Your task to perform on an android device: delete browsing data in the chrome app Image 0: 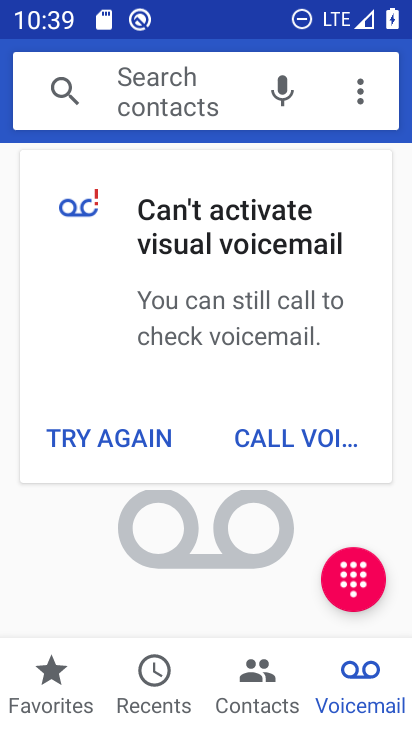
Step 0: press home button
Your task to perform on an android device: delete browsing data in the chrome app Image 1: 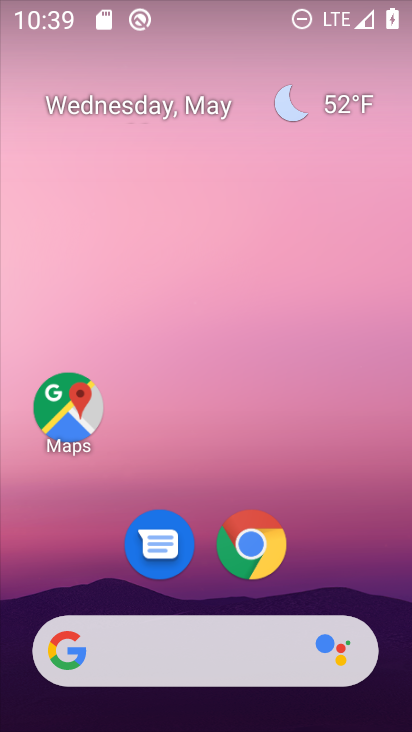
Step 1: click (252, 545)
Your task to perform on an android device: delete browsing data in the chrome app Image 2: 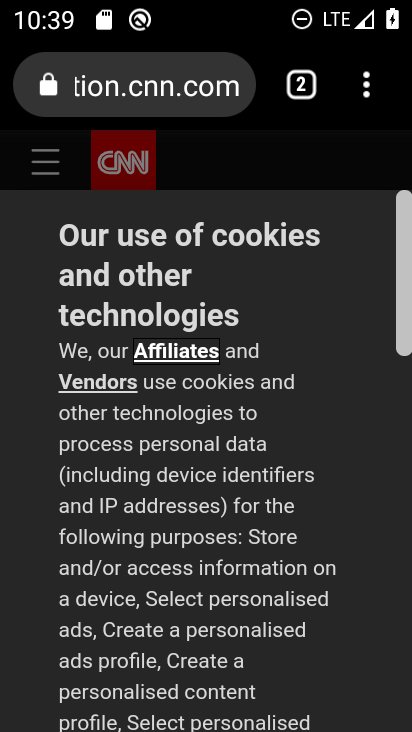
Step 2: click (354, 98)
Your task to perform on an android device: delete browsing data in the chrome app Image 3: 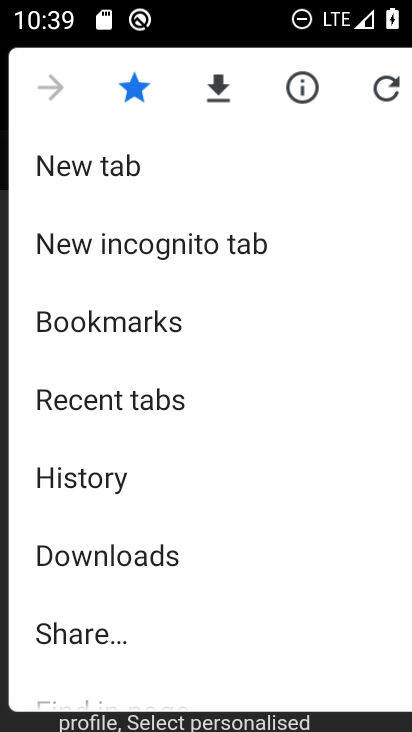
Step 3: click (87, 481)
Your task to perform on an android device: delete browsing data in the chrome app Image 4: 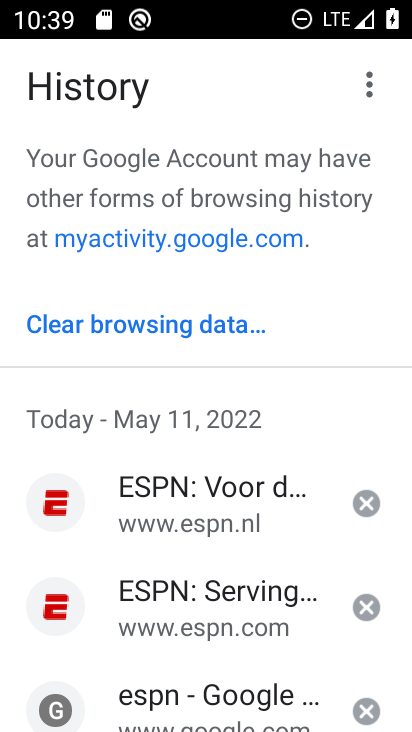
Step 4: click (110, 319)
Your task to perform on an android device: delete browsing data in the chrome app Image 5: 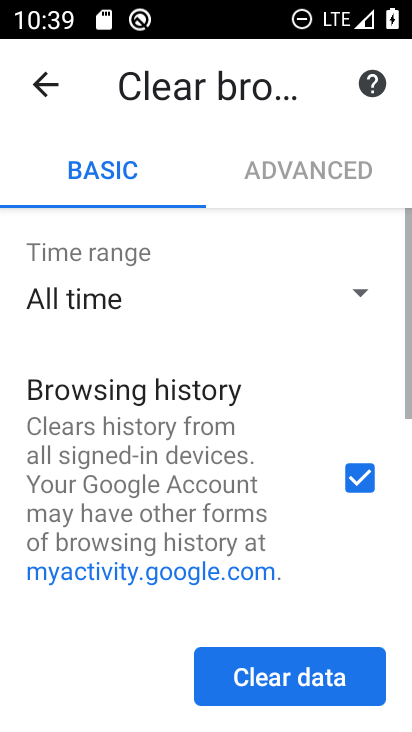
Step 5: click (310, 672)
Your task to perform on an android device: delete browsing data in the chrome app Image 6: 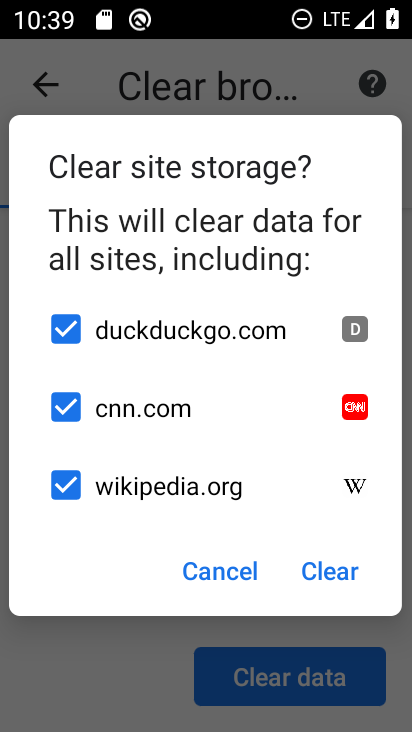
Step 6: click (337, 561)
Your task to perform on an android device: delete browsing data in the chrome app Image 7: 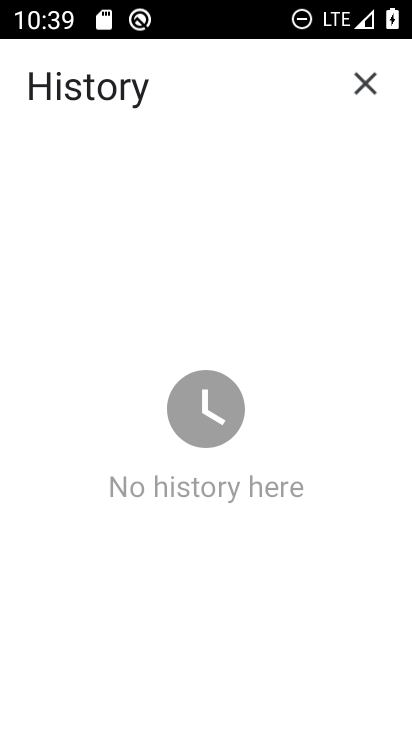
Step 7: task complete